Your task to perform on an android device: What's the news this evening? Image 0: 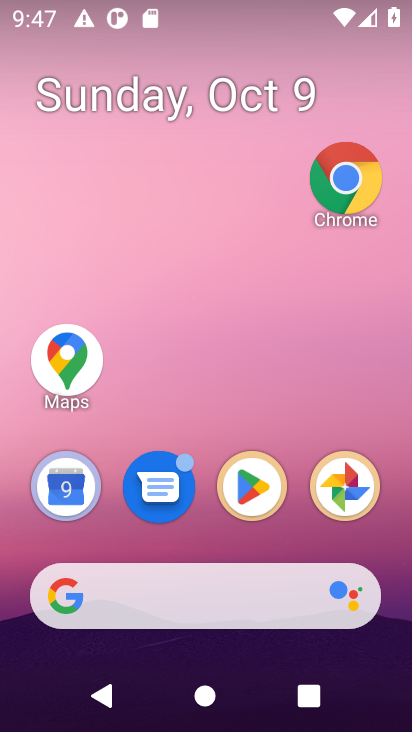
Step 0: drag from (253, 614) to (279, 192)
Your task to perform on an android device: What's the news this evening? Image 1: 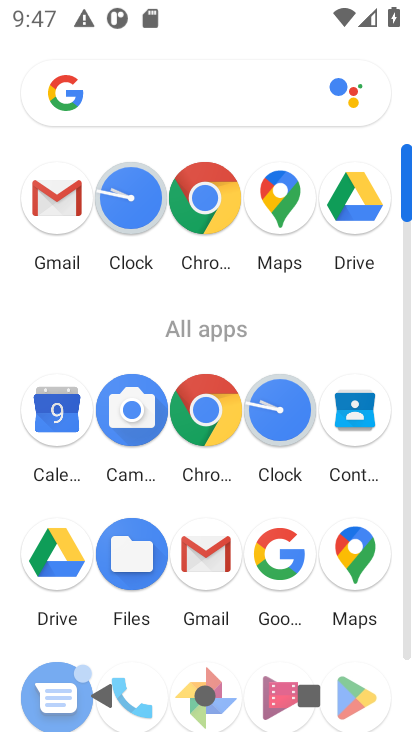
Step 1: click (295, 557)
Your task to perform on an android device: What's the news this evening? Image 2: 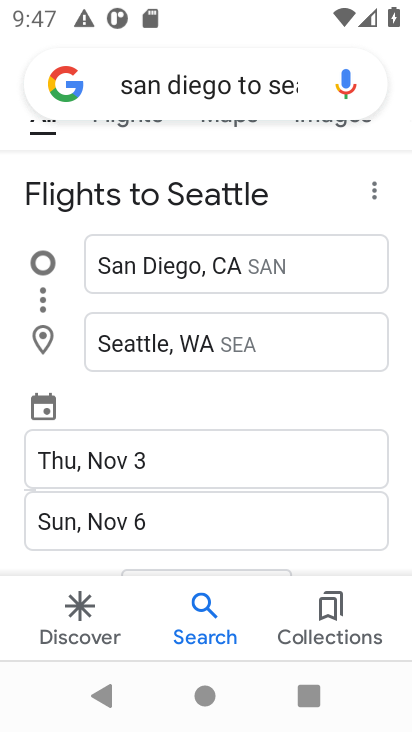
Step 2: click (198, 86)
Your task to perform on an android device: What's the news this evening? Image 3: 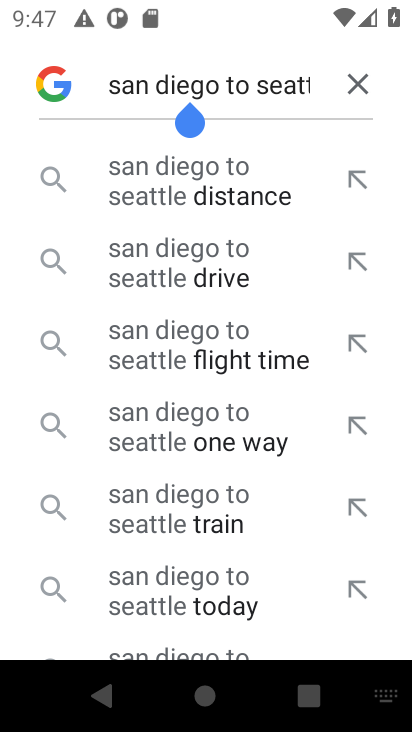
Step 3: click (357, 86)
Your task to perform on an android device: What's the news this evening? Image 4: 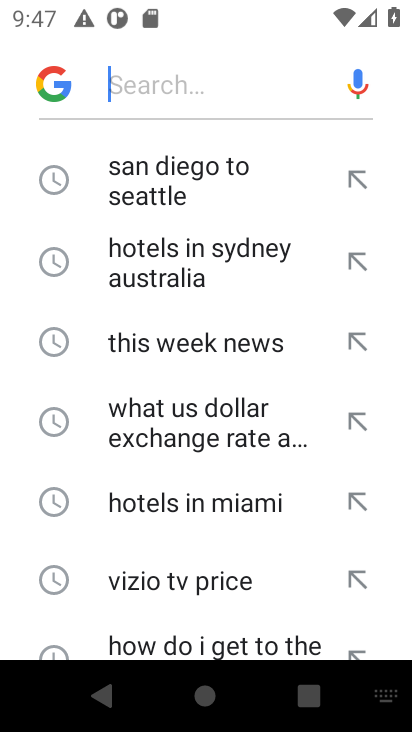
Step 4: type "news this evening"
Your task to perform on an android device: What's the news this evening? Image 5: 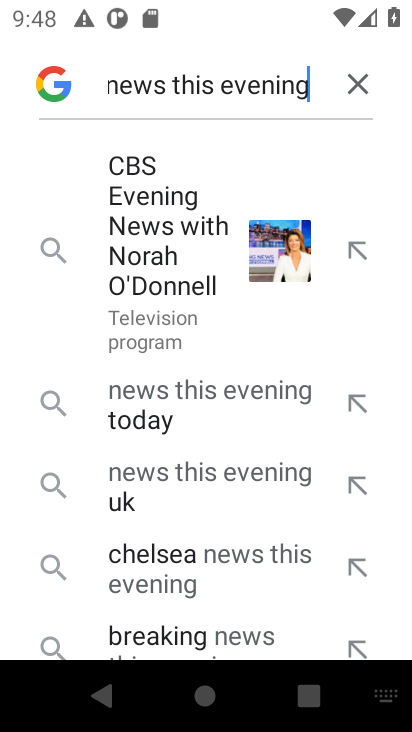
Step 5: click (227, 393)
Your task to perform on an android device: What's the news this evening? Image 6: 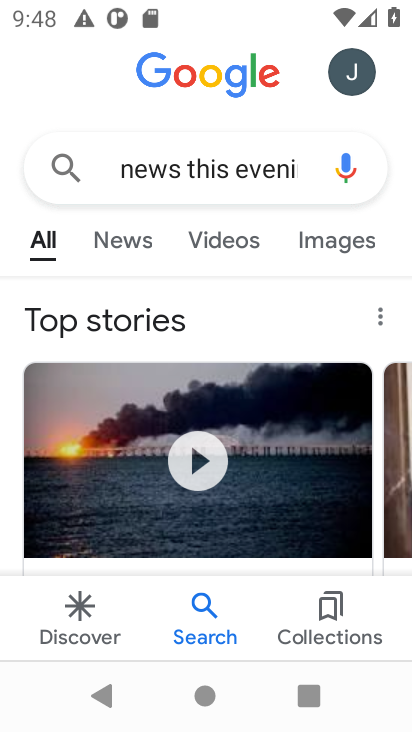
Step 6: click (132, 248)
Your task to perform on an android device: What's the news this evening? Image 7: 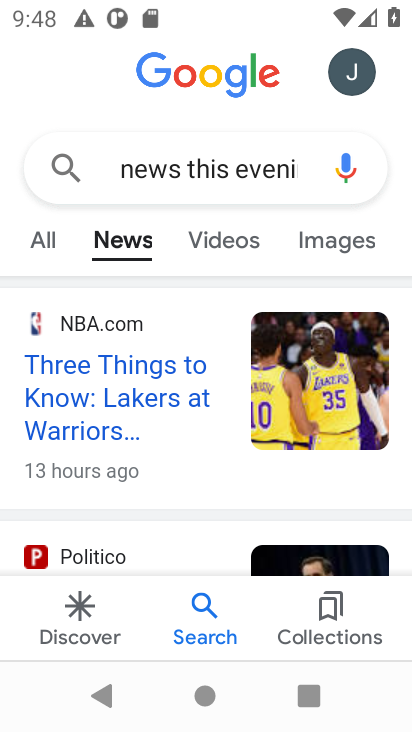
Step 7: task complete